Your task to perform on an android device: Open CNN.com Image 0: 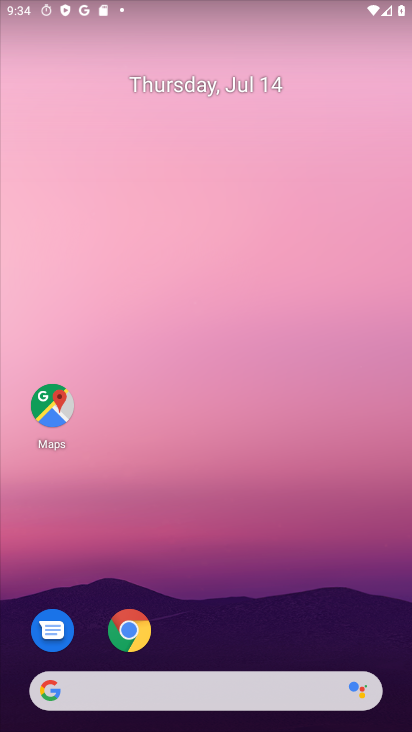
Step 0: drag from (85, 624) to (253, 23)
Your task to perform on an android device: Open CNN.com Image 1: 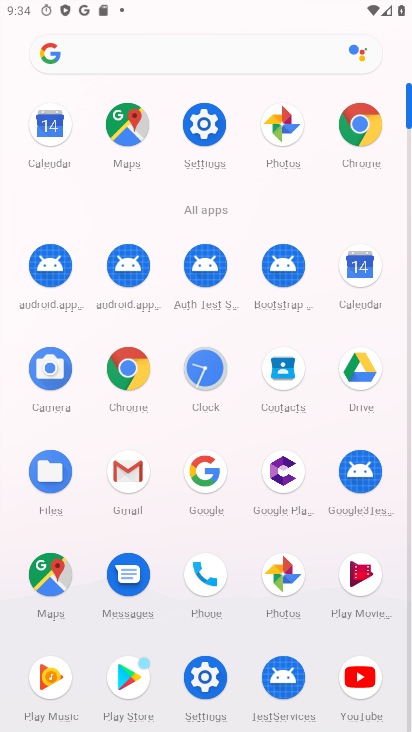
Step 1: click (197, 496)
Your task to perform on an android device: Open CNN.com Image 2: 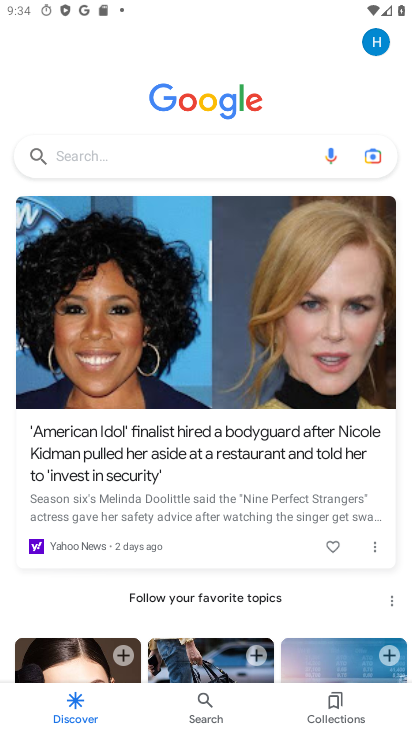
Step 2: click (66, 149)
Your task to perform on an android device: Open CNN.com Image 3: 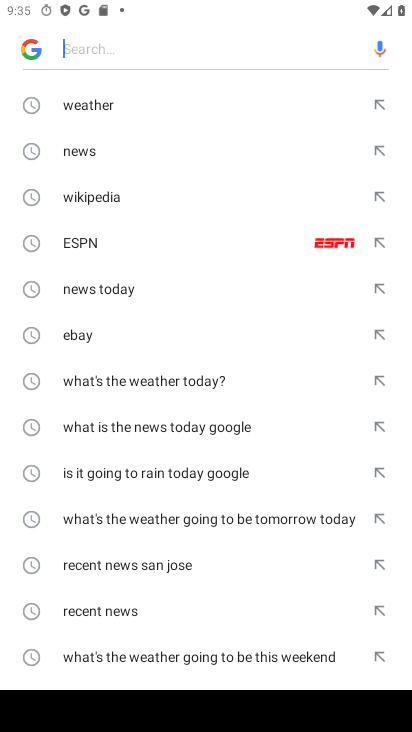
Step 3: type "CNN.com"
Your task to perform on an android device: Open CNN.com Image 4: 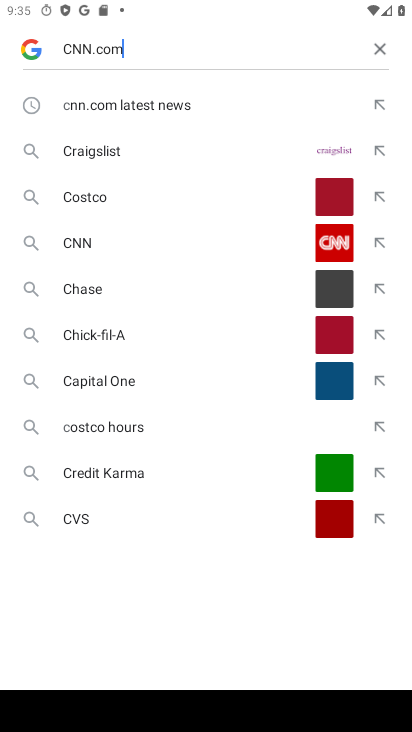
Step 4: type ""
Your task to perform on an android device: Open CNN.com Image 5: 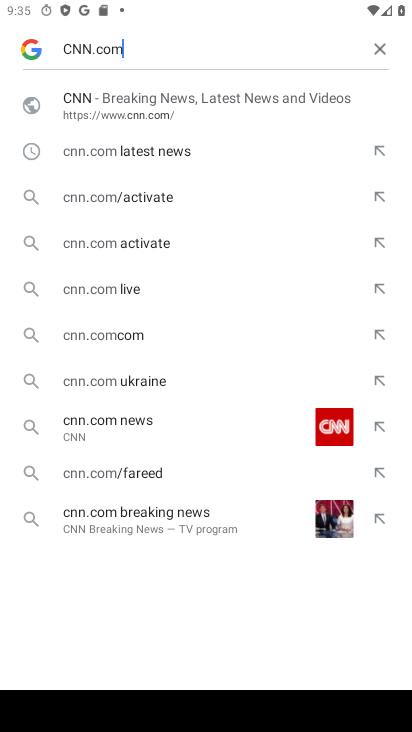
Step 5: click (106, 101)
Your task to perform on an android device: Open CNN.com Image 6: 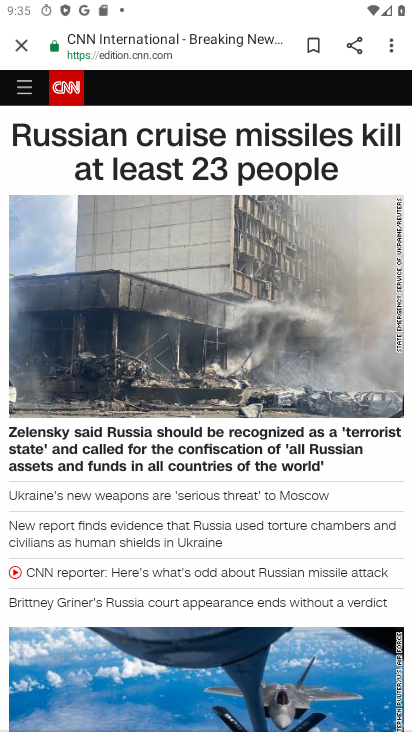
Step 6: task complete